Your task to perform on an android device: Set the phone to "Do not disturb". Image 0: 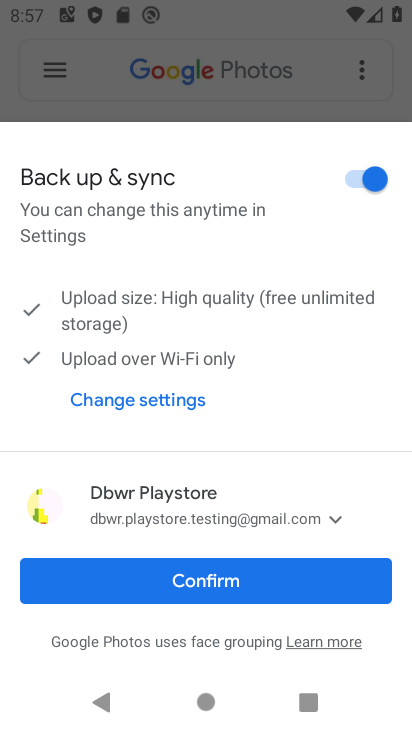
Step 0: press home button
Your task to perform on an android device: Set the phone to "Do not disturb". Image 1: 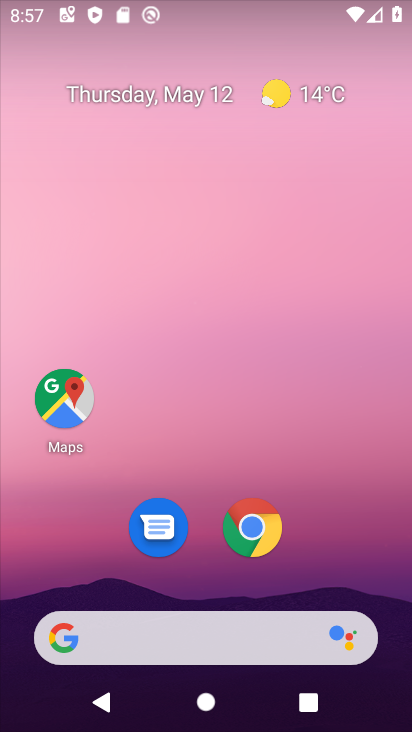
Step 1: drag from (316, 483) to (255, 4)
Your task to perform on an android device: Set the phone to "Do not disturb". Image 2: 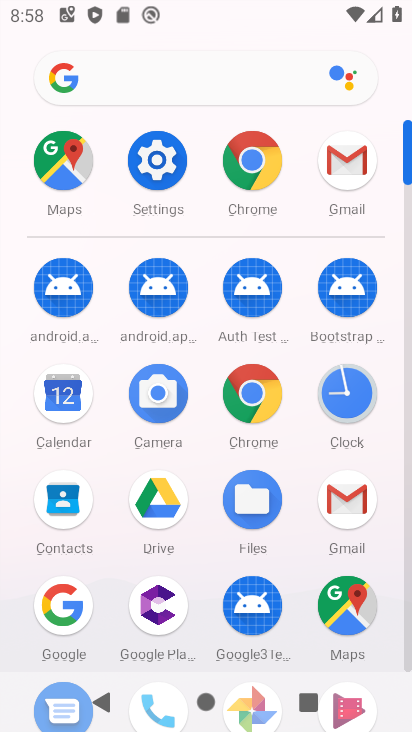
Step 2: click (171, 163)
Your task to perform on an android device: Set the phone to "Do not disturb". Image 3: 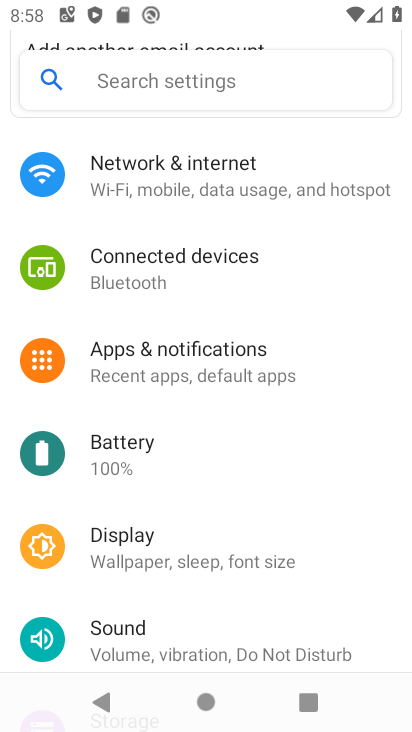
Step 3: click (218, 288)
Your task to perform on an android device: Set the phone to "Do not disturb". Image 4: 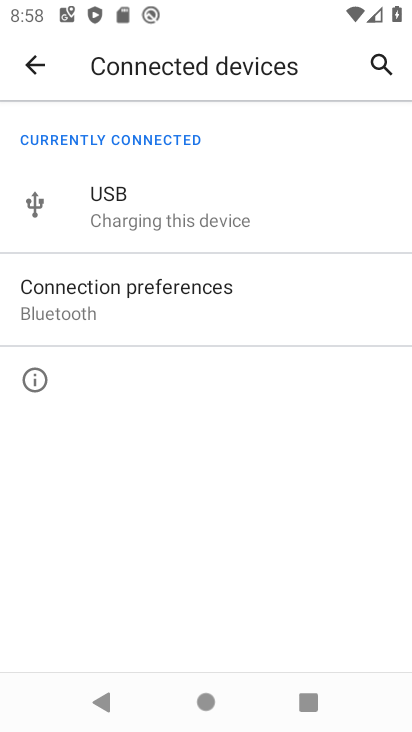
Step 4: click (26, 74)
Your task to perform on an android device: Set the phone to "Do not disturb". Image 5: 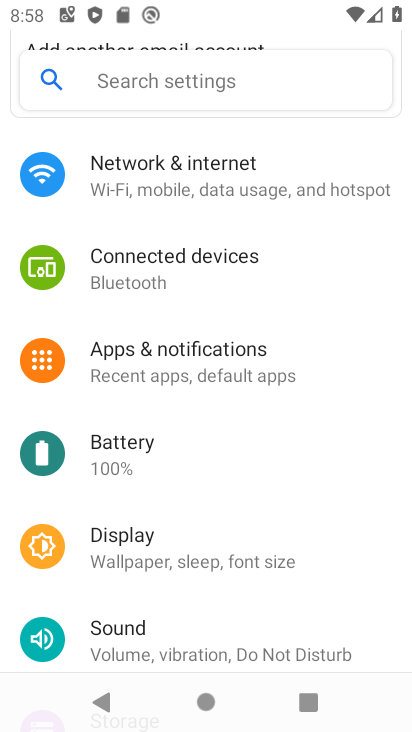
Step 5: click (150, 638)
Your task to perform on an android device: Set the phone to "Do not disturb". Image 6: 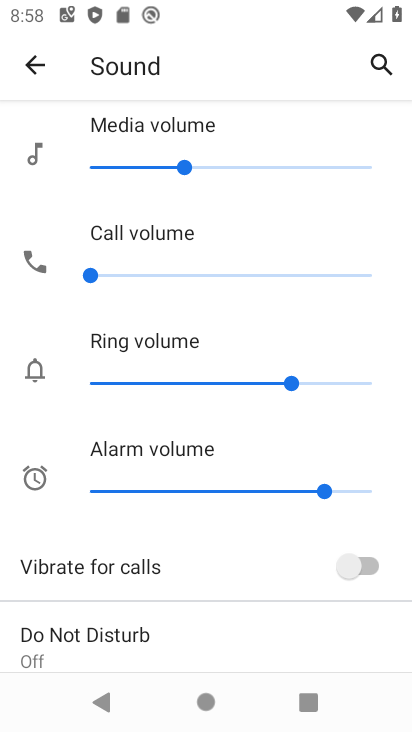
Step 6: click (172, 631)
Your task to perform on an android device: Set the phone to "Do not disturb". Image 7: 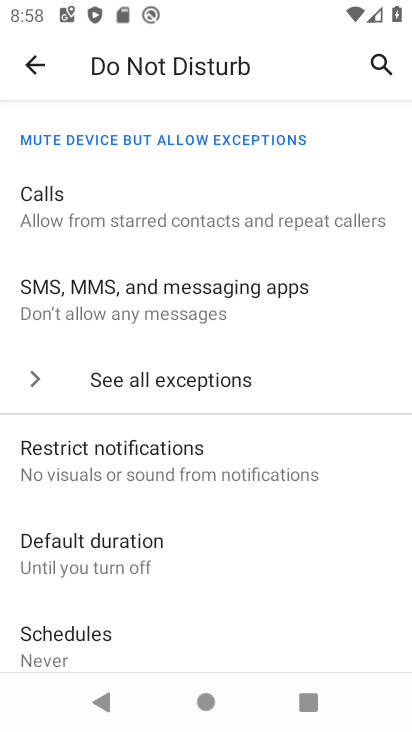
Step 7: drag from (139, 545) to (187, 127)
Your task to perform on an android device: Set the phone to "Do not disturb". Image 8: 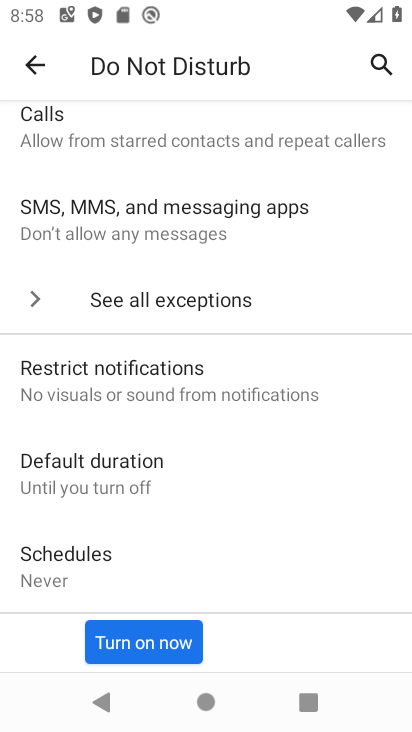
Step 8: click (143, 633)
Your task to perform on an android device: Set the phone to "Do not disturb". Image 9: 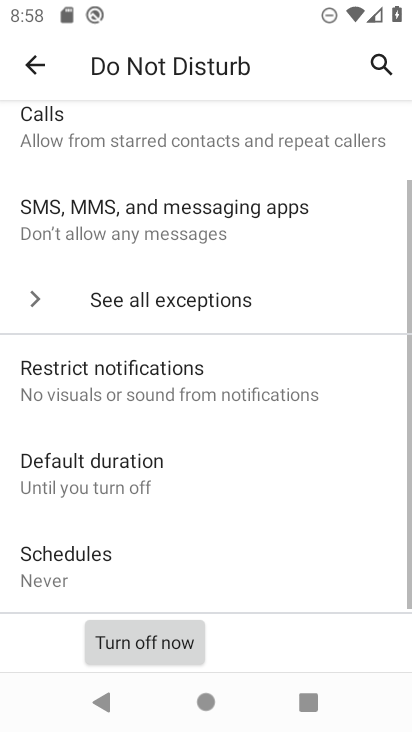
Step 9: task complete